Your task to perform on an android device: Open Google Maps and go to "Timeline" Image 0: 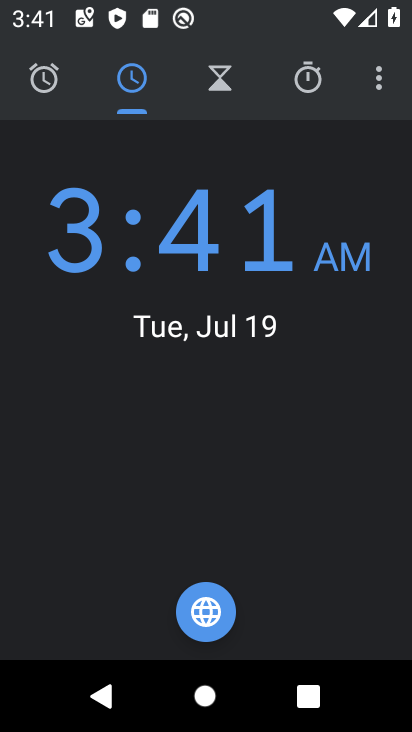
Step 0: press back button
Your task to perform on an android device: Open Google Maps and go to "Timeline" Image 1: 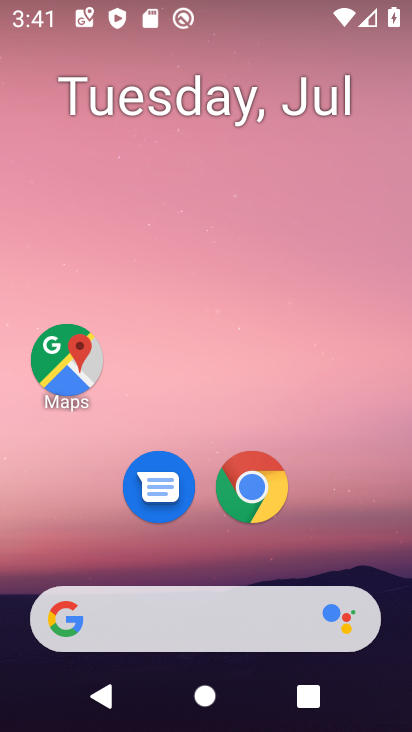
Step 1: click (67, 360)
Your task to perform on an android device: Open Google Maps and go to "Timeline" Image 2: 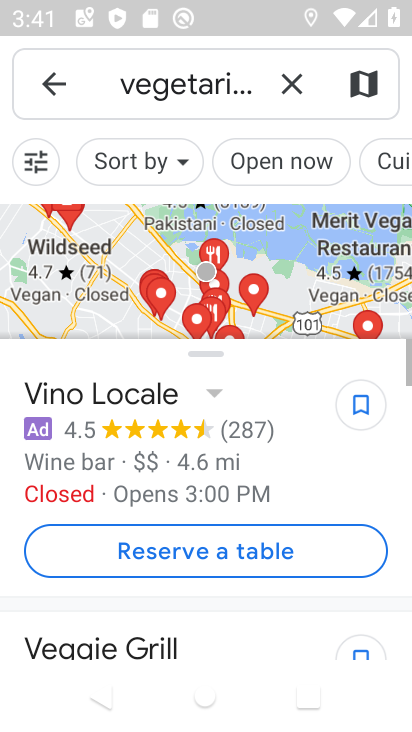
Step 2: click (73, 93)
Your task to perform on an android device: Open Google Maps and go to "Timeline" Image 3: 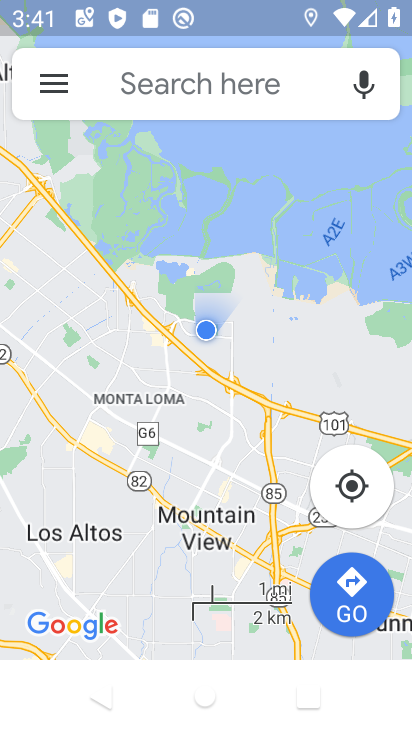
Step 3: click (57, 82)
Your task to perform on an android device: Open Google Maps and go to "Timeline" Image 4: 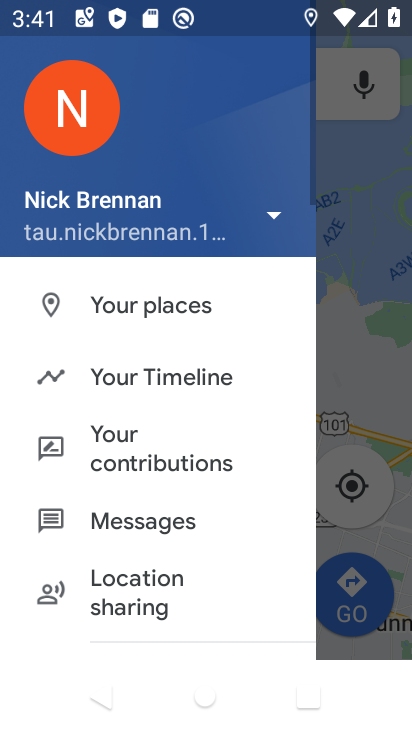
Step 4: click (137, 368)
Your task to perform on an android device: Open Google Maps and go to "Timeline" Image 5: 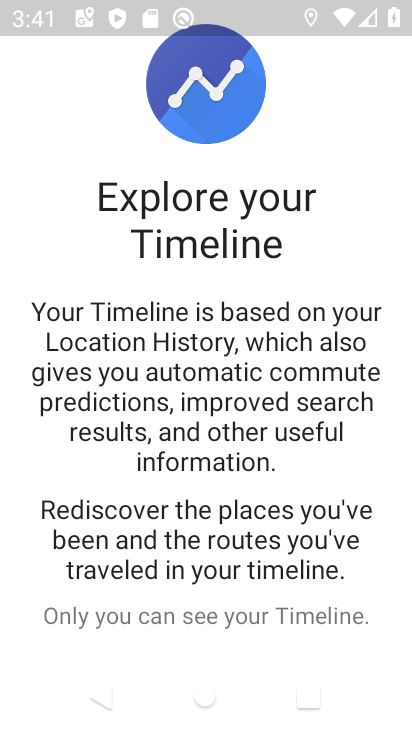
Step 5: drag from (165, 514) to (262, 14)
Your task to perform on an android device: Open Google Maps and go to "Timeline" Image 6: 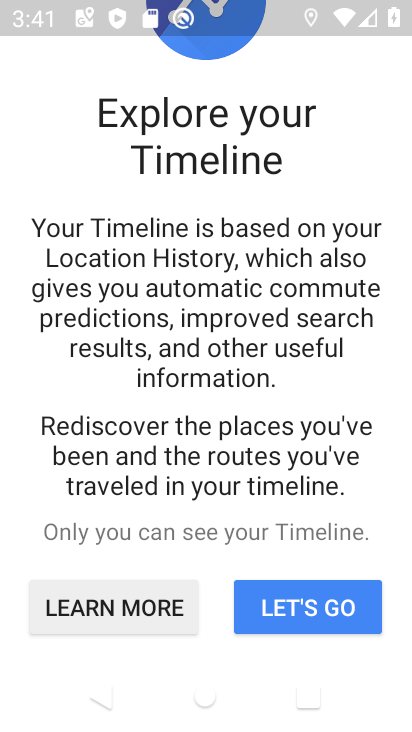
Step 6: click (311, 588)
Your task to perform on an android device: Open Google Maps and go to "Timeline" Image 7: 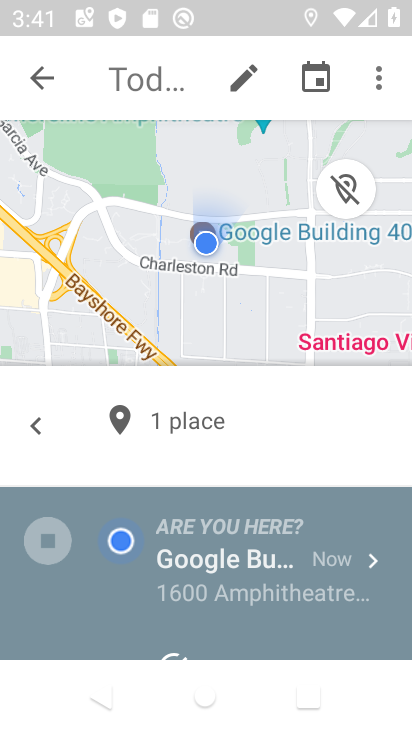
Step 7: task complete